Your task to perform on an android device: Go to network settings Image 0: 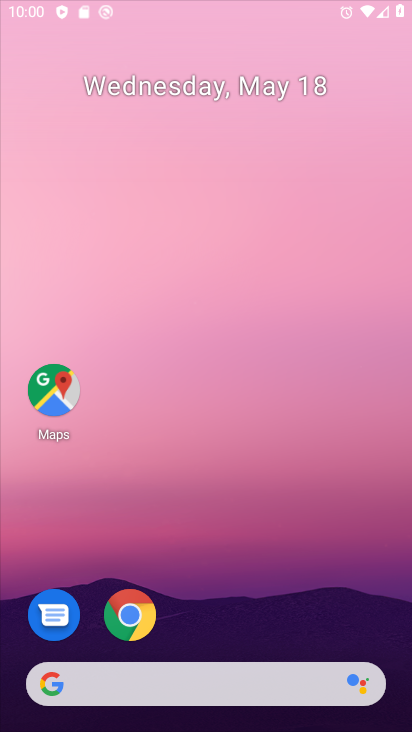
Step 0: click (191, 279)
Your task to perform on an android device: Go to network settings Image 1: 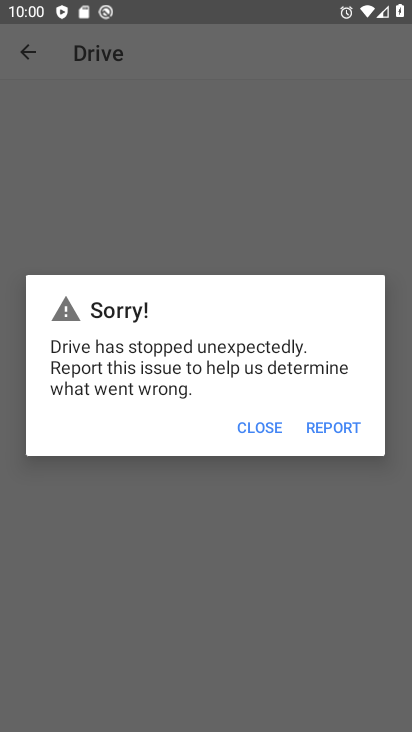
Step 1: press home button
Your task to perform on an android device: Go to network settings Image 2: 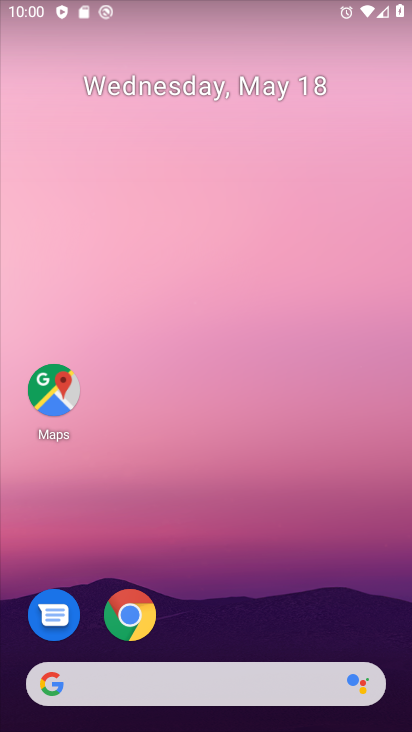
Step 2: drag from (207, 558) to (251, 255)
Your task to perform on an android device: Go to network settings Image 3: 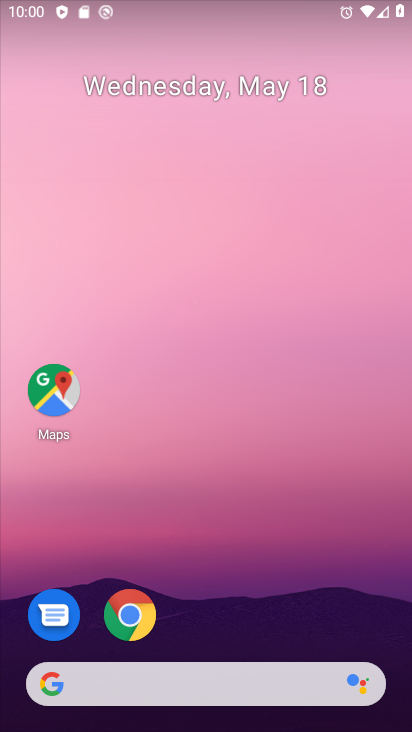
Step 3: drag from (219, 653) to (228, 276)
Your task to perform on an android device: Go to network settings Image 4: 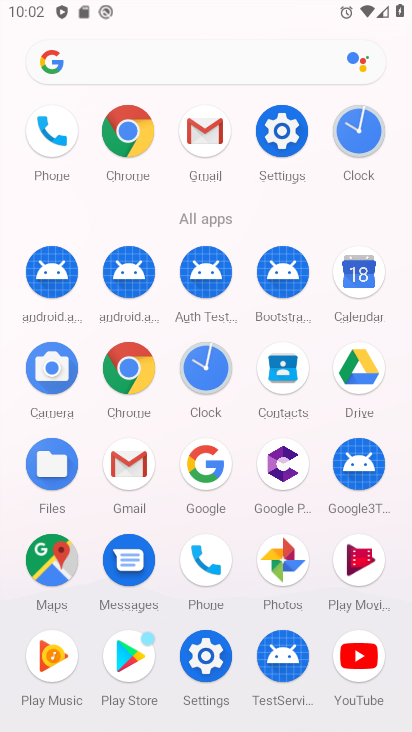
Step 4: click (207, 662)
Your task to perform on an android device: Go to network settings Image 5: 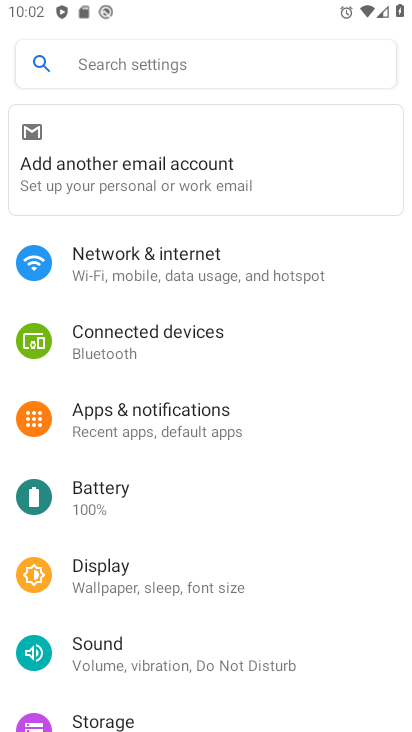
Step 5: click (192, 266)
Your task to perform on an android device: Go to network settings Image 6: 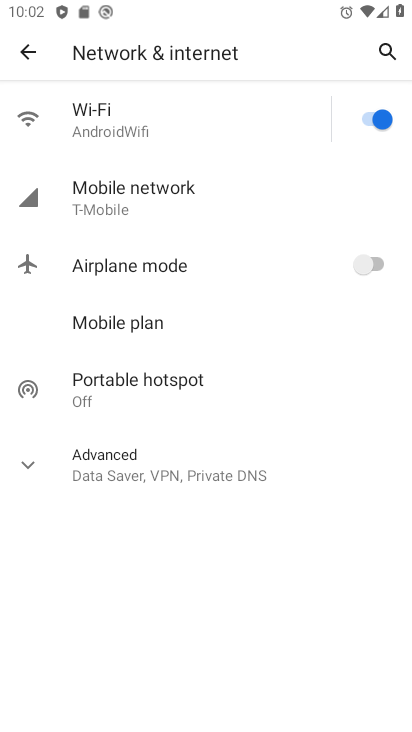
Step 6: click (143, 192)
Your task to perform on an android device: Go to network settings Image 7: 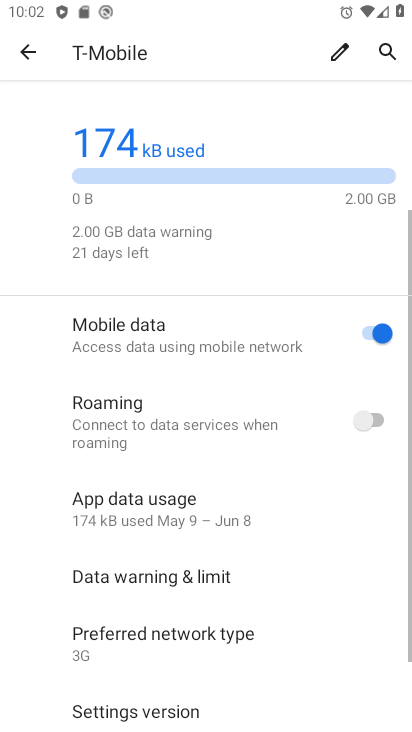
Step 7: click (167, 472)
Your task to perform on an android device: Go to network settings Image 8: 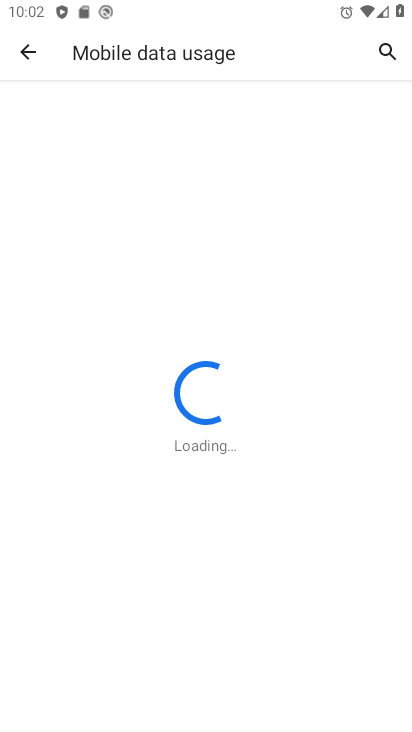
Step 8: task complete